Your task to perform on an android device: Open network settings Image 0: 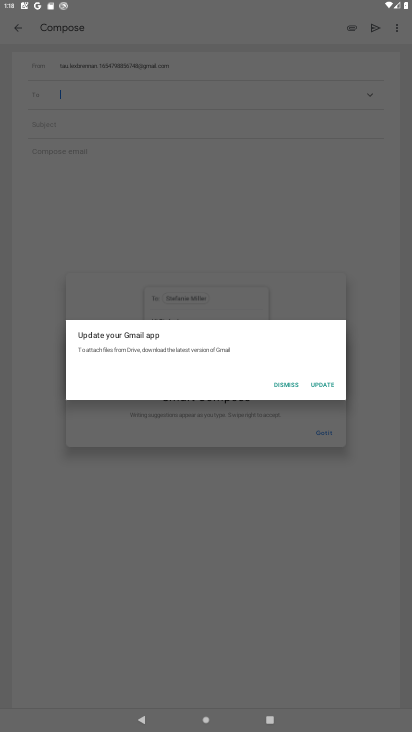
Step 0: press home button
Your task to perform on an android device: Open network settings Image 1: 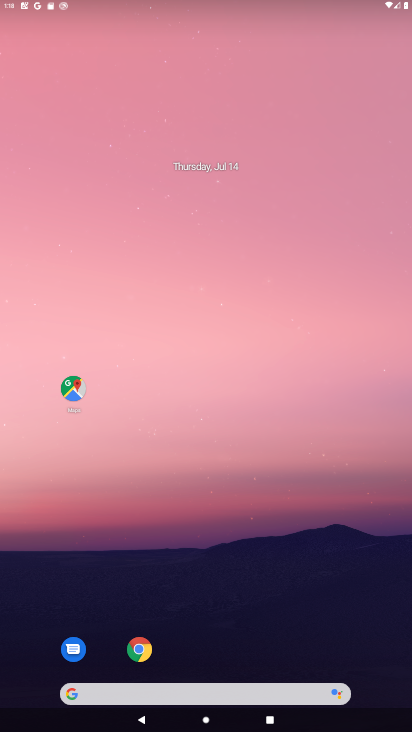
Step 1: drag from (327, 676) to (301, 126)
Your task to perform on an android device: Open network settings Image 2: 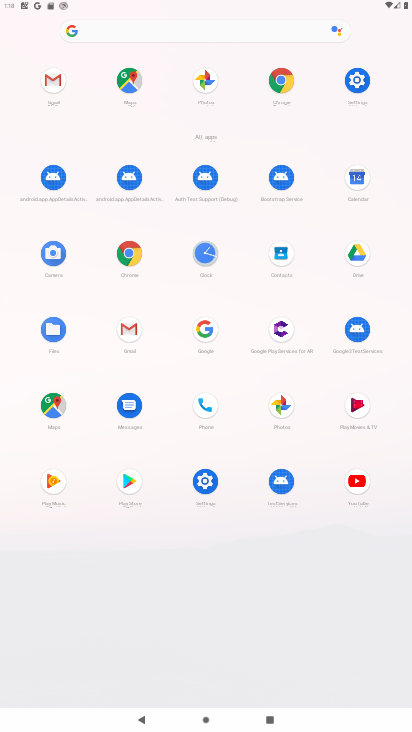
Step 2: click (359, 72)
Your task to perform on an android device: Open network settings Image 3: 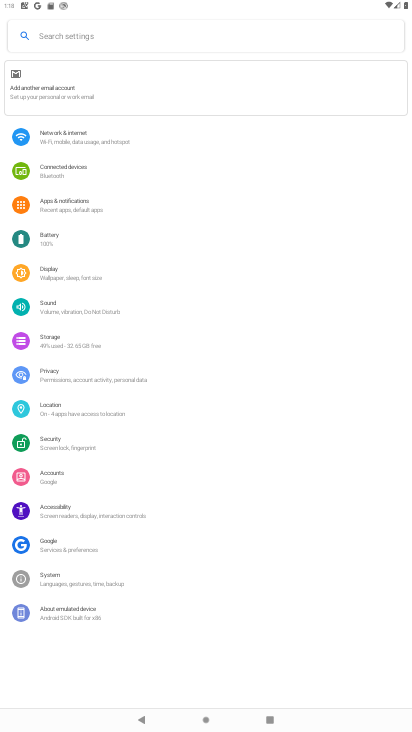
Step 3: click (97, 132)
Your task to perform on an android device: Open network settings Image 4: 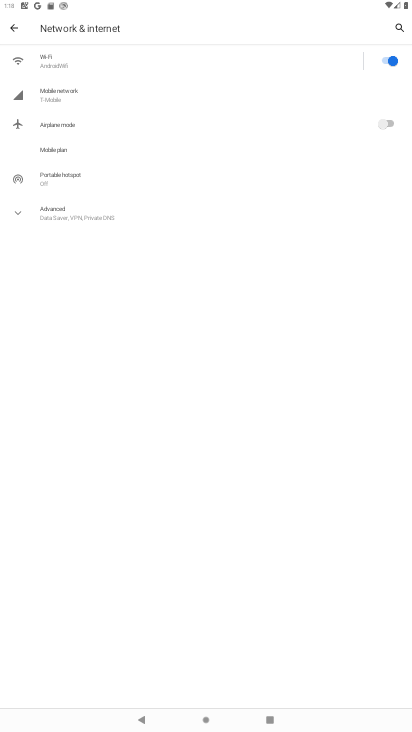
Step 4: task complete